Your task to perform on an android device: change alarm snooze length Image 0: 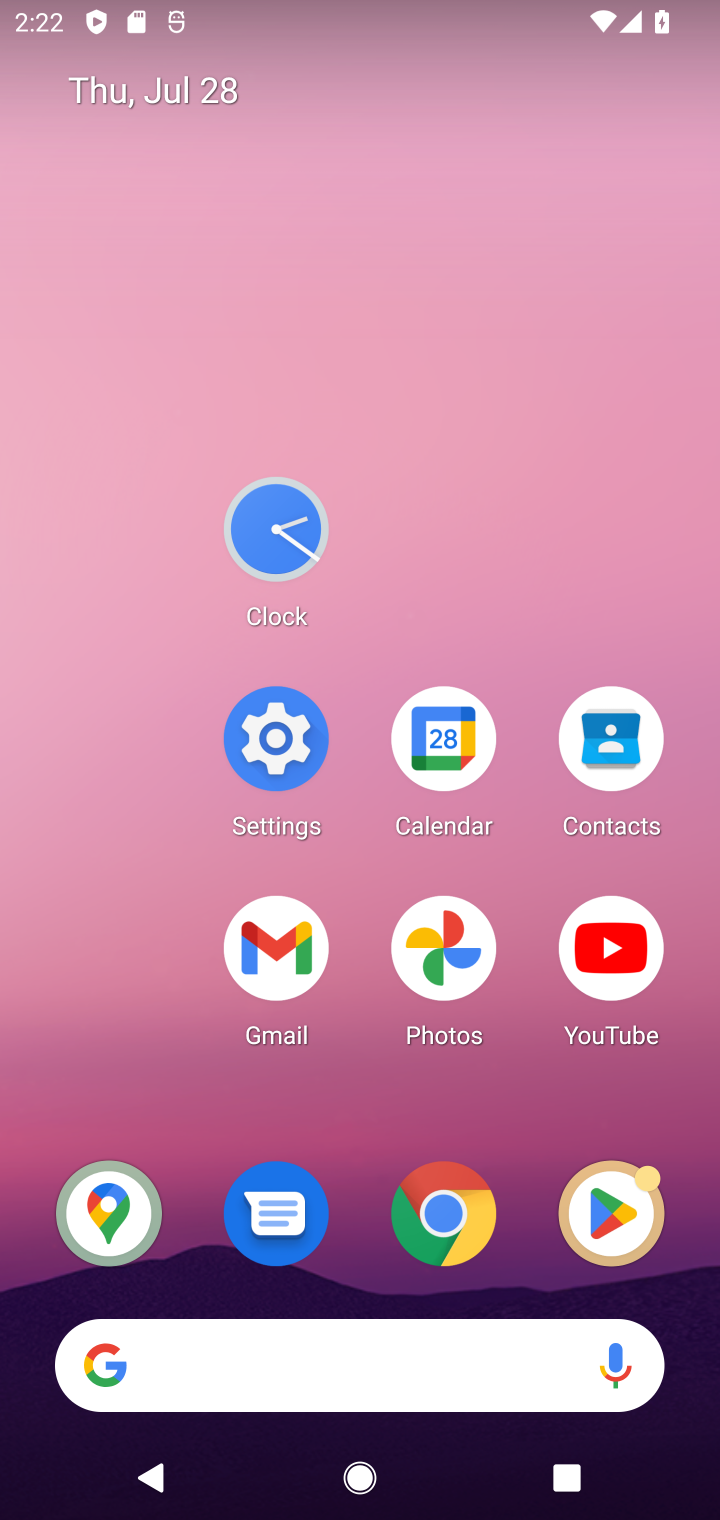
Step 0: click (275, 534)
Your task to perform on an android device: change alarm snooze length Image 1: 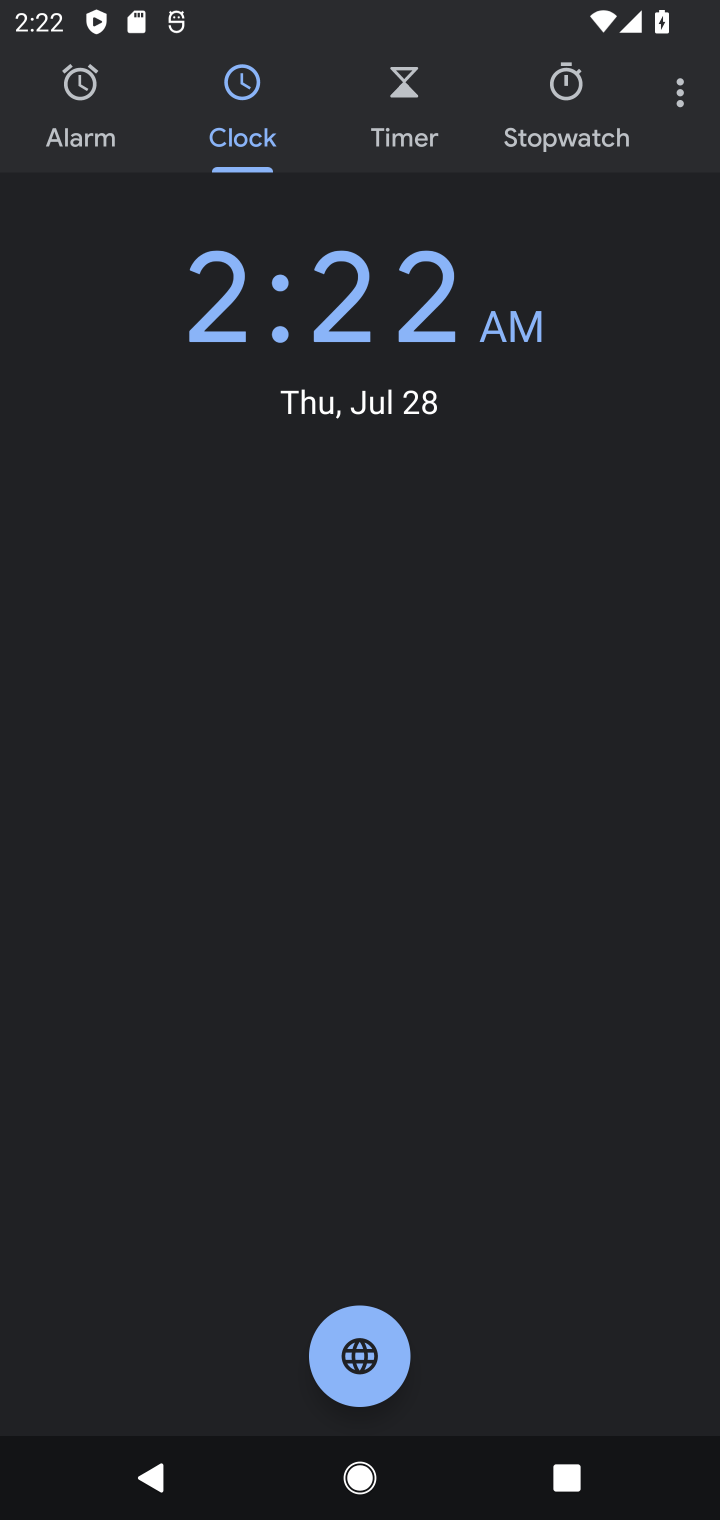
Step 1: click (681, 109)
Your task to perform on an android device: change alarm snooze length Image 2: 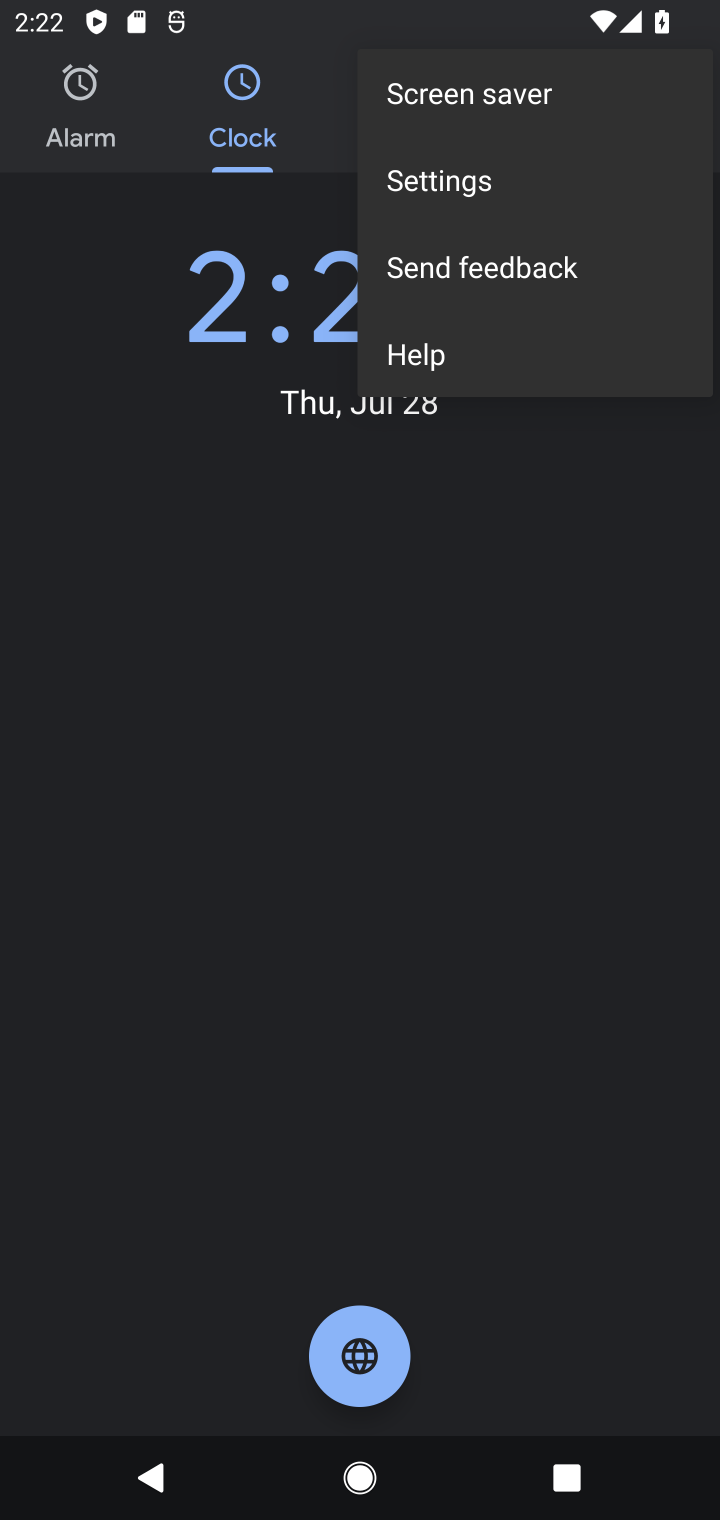
Step 2: click (681, 109)
Your task to perform on an android device: change alarm snooze length Image 3: 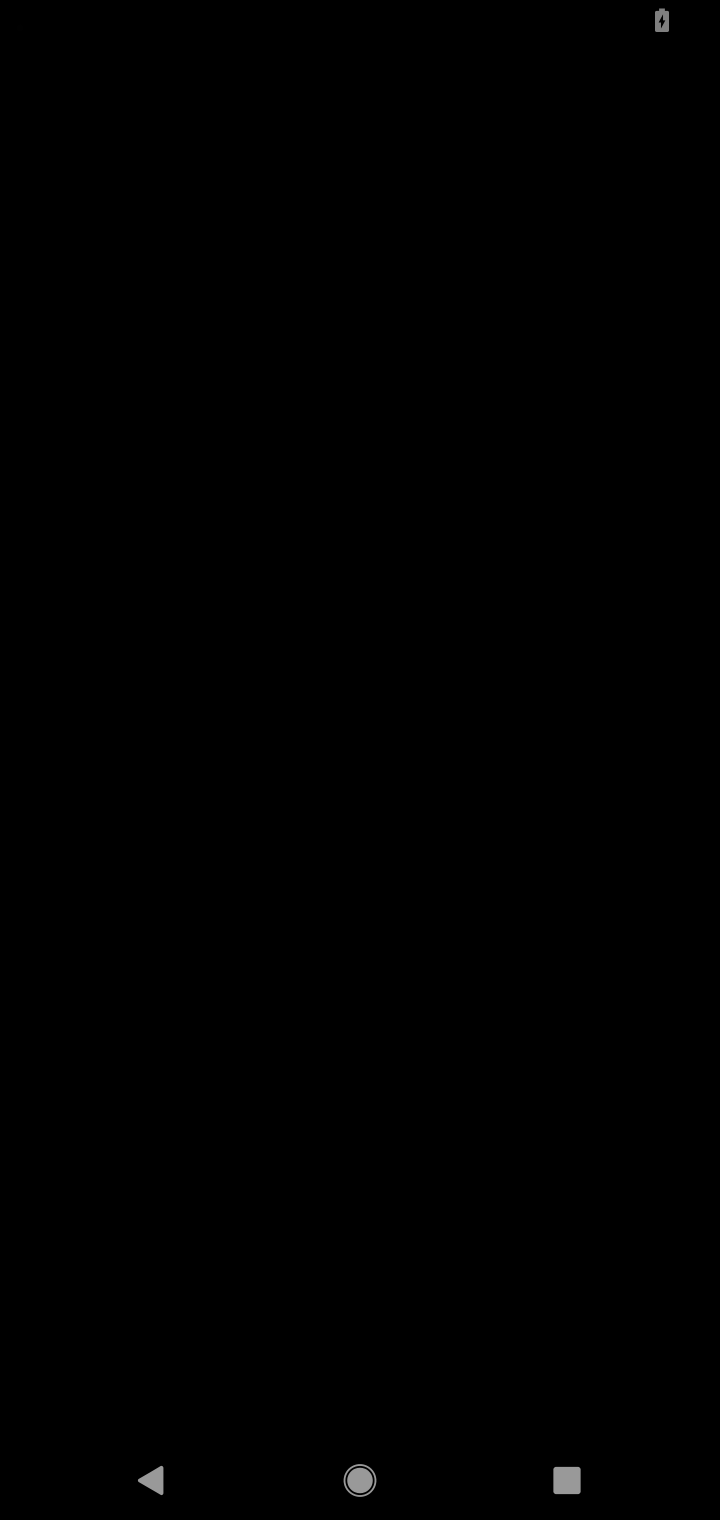
Step 3: click (438, 181)
Your task to perform on an android device: change alarm snooze length Image 4: 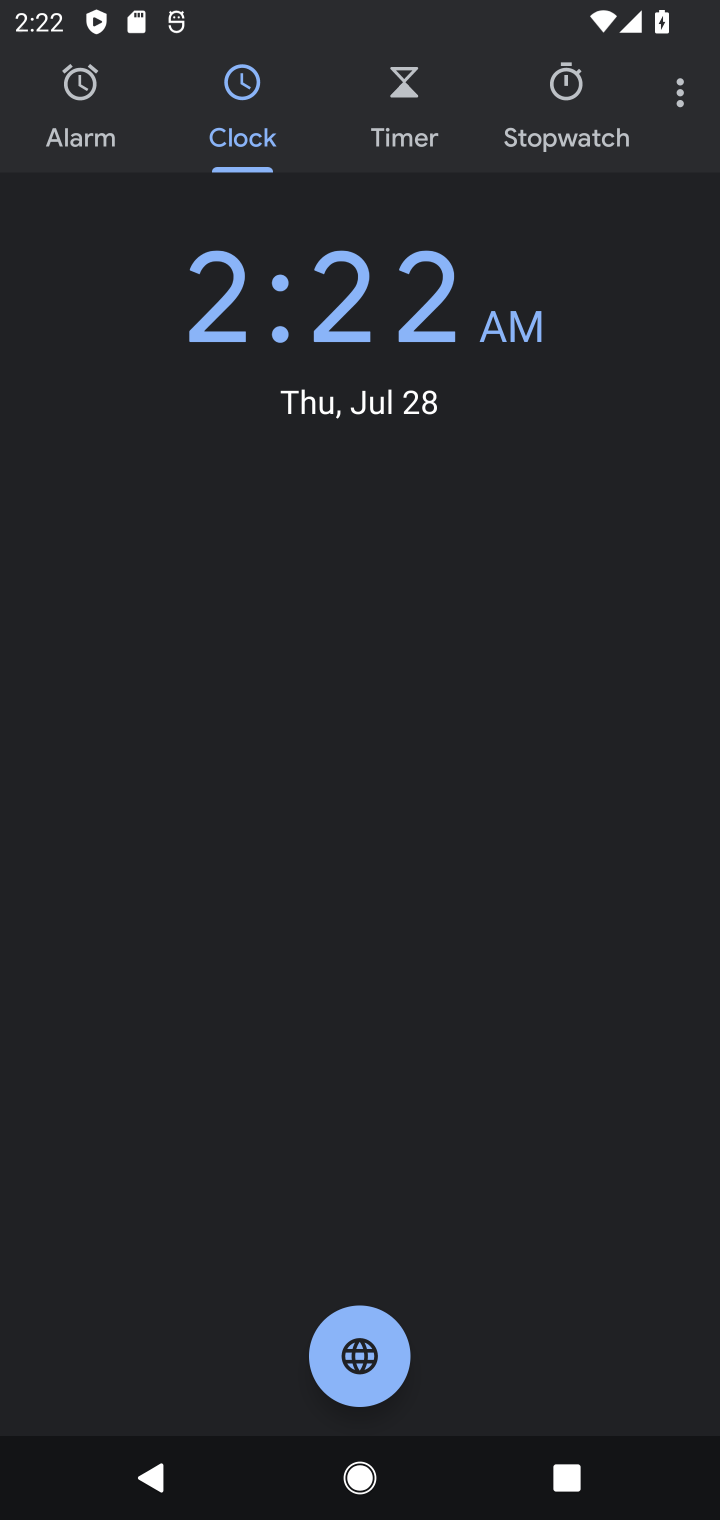
Step 4: click (676, 96)
Your task to perform on an android device: change alarm snooze length Image 5: 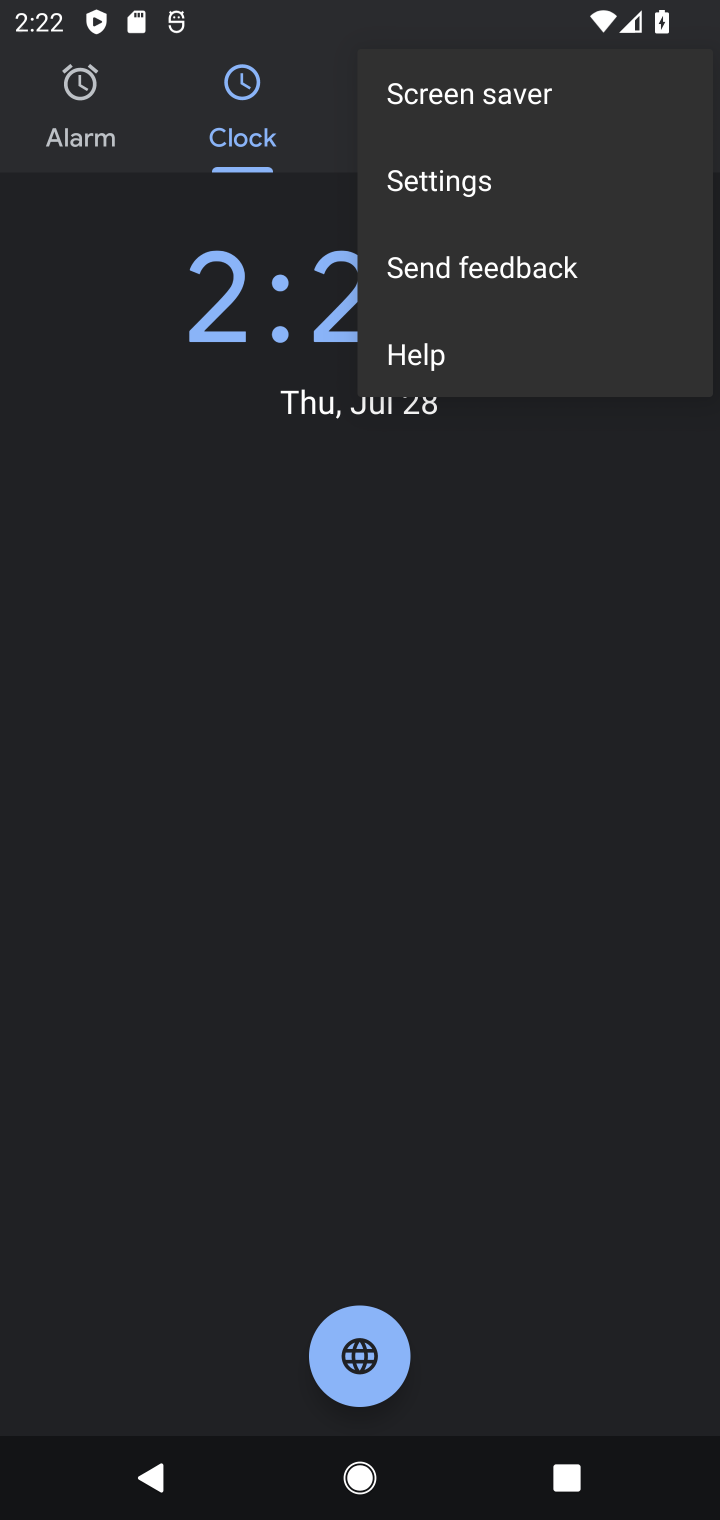
Step 5: click (458, 172)
Your task to perform on an android device: change alarm snooze length Image 6: 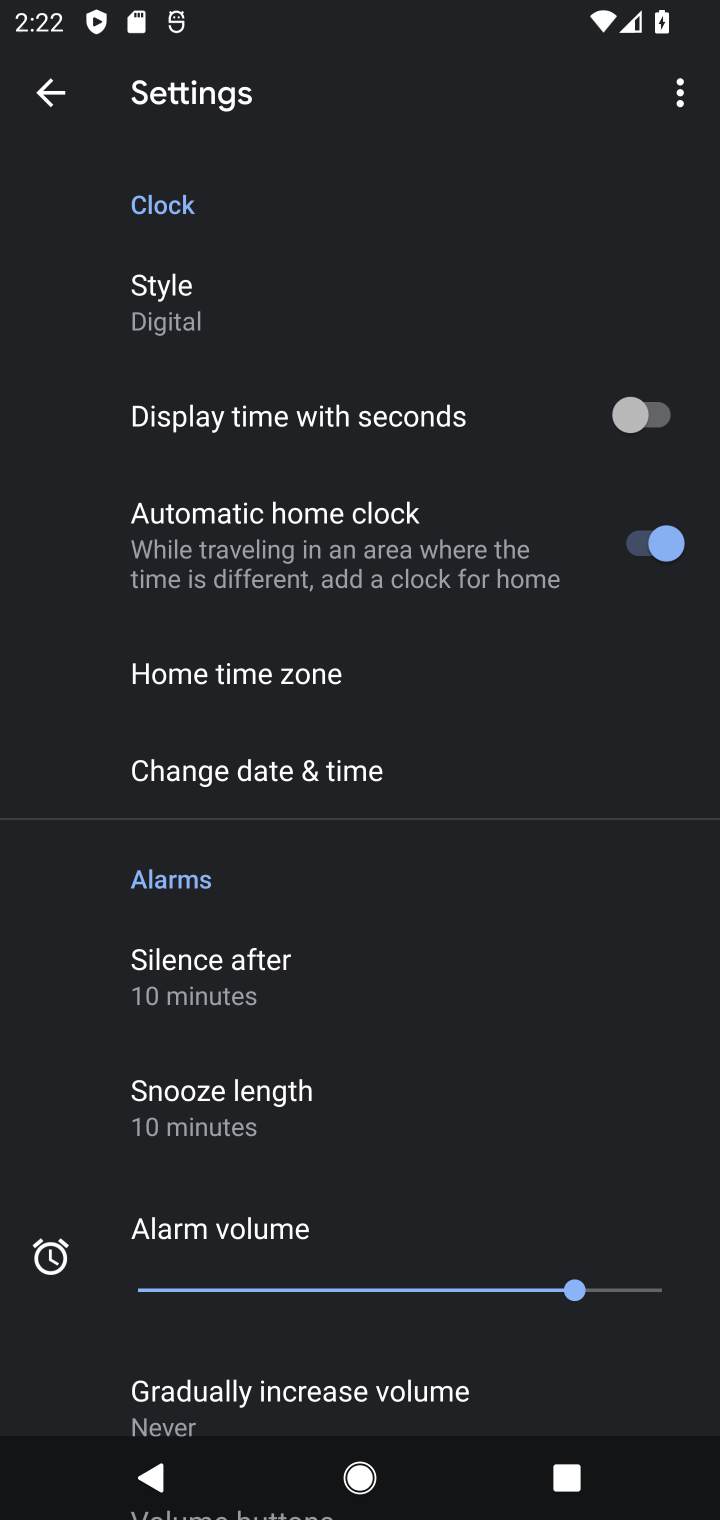
Step 6: click (223, 1096)
Your task to perform on an android device: change alarm snooze length Image 7: 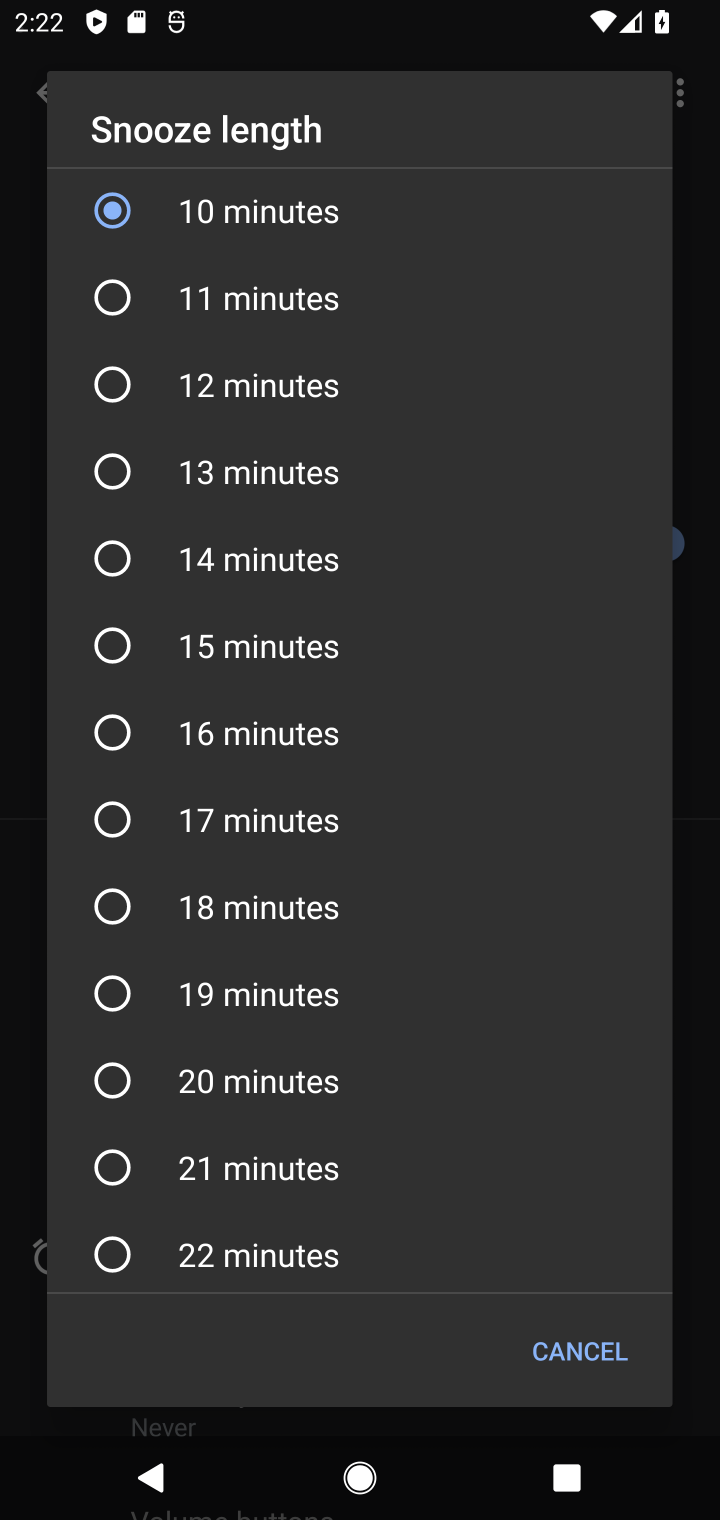
Step 7: click (106, 299)
Your task to perform on an android device: change alarm snooze length Image 8: 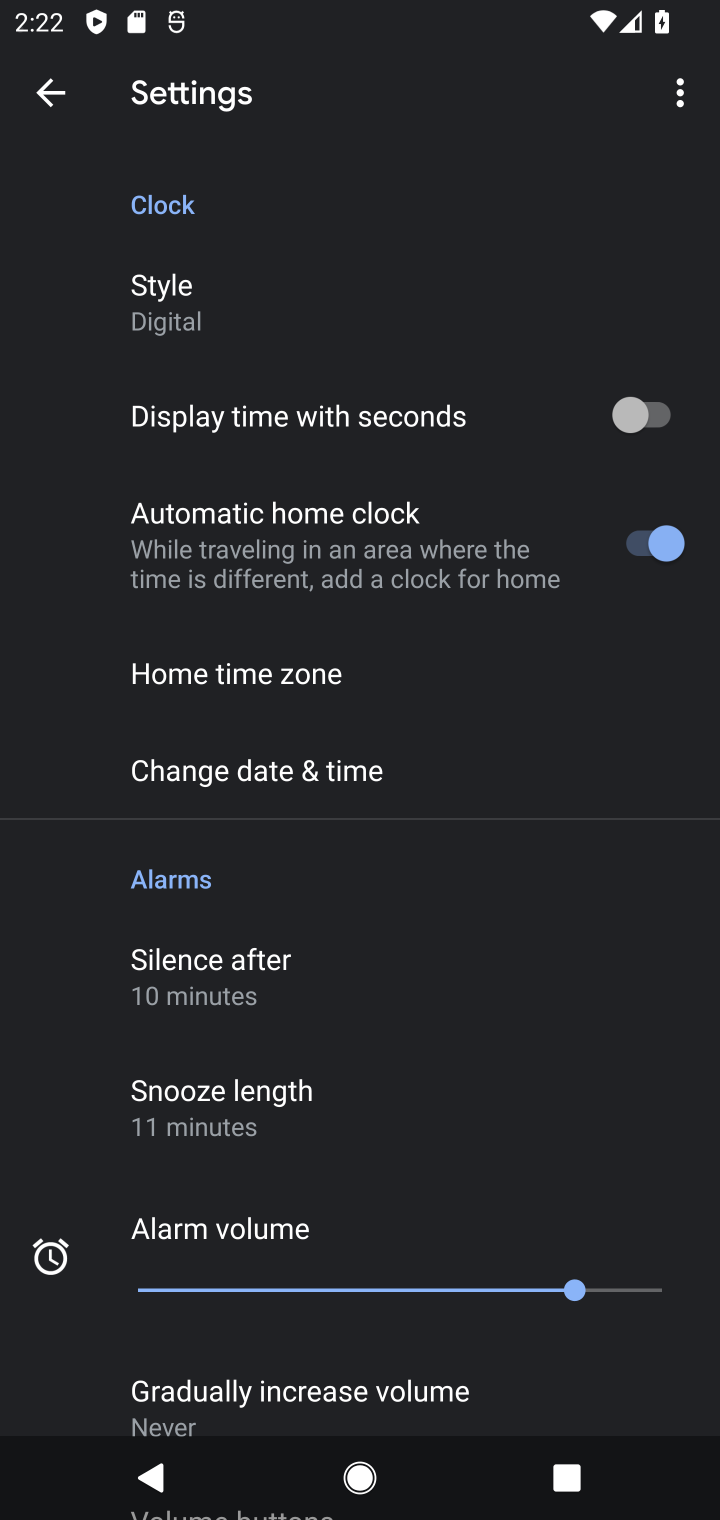
Step 8: task complete